Your task to perform on an android device: Go to network settings Image 0: 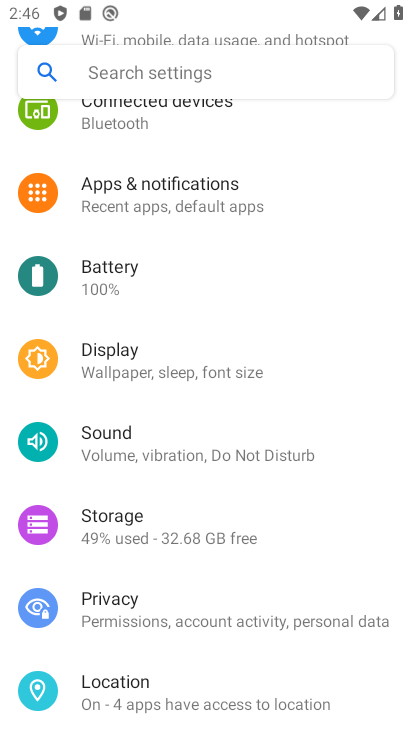
Step 0: drag from (270, 216) to (245, 568)
Your task to perform on an android device: Go to network settings Image 1: 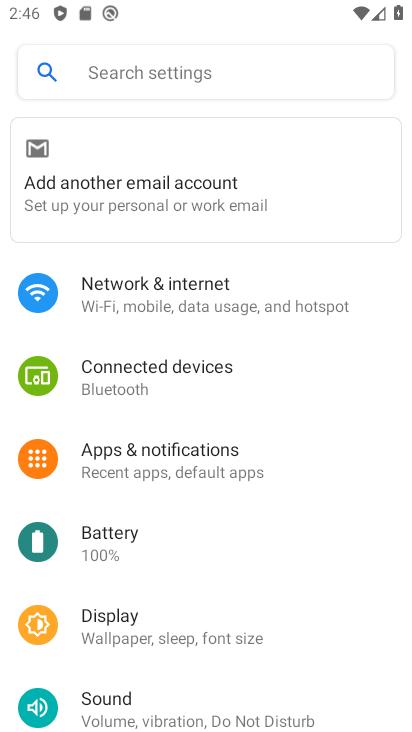
Step 1: click (214, 274)
Your task to perform on an android device: Go to network settings Image 2: 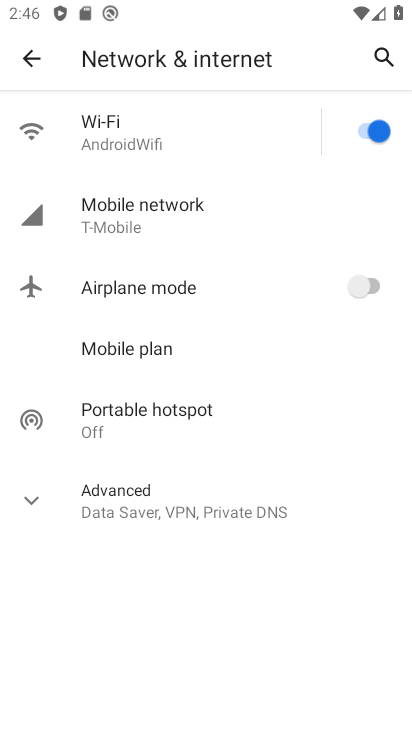
Step 2: task complete